Your task to perform on an android device: check the backup settings in the google photos Image 0: 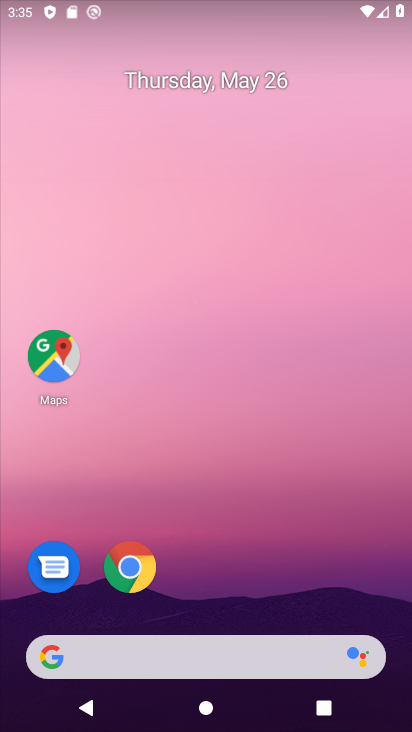
Step 0: drag from (204, 634) to (273, 161)
Your task to perform on an android device: check the backup settings in the google photos Image 1: 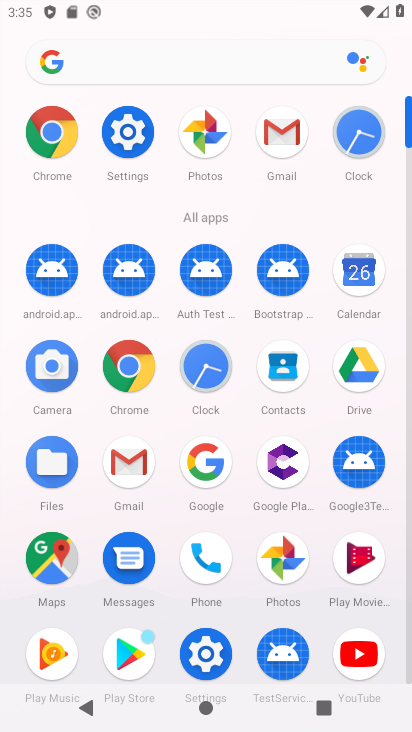
Step 1: click (298, 567)
Your task to perform on an android device: check the backup settings in the google photos Image 2: 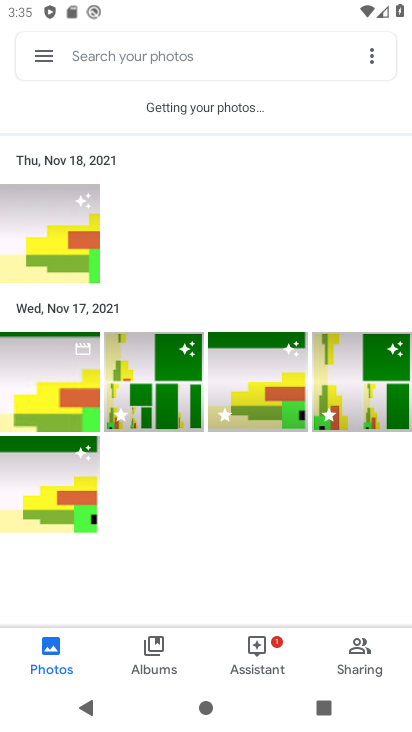
Step 2: click (55, 59)
Your task to perform on an android device: check the backup settings in the google photos Image 3: 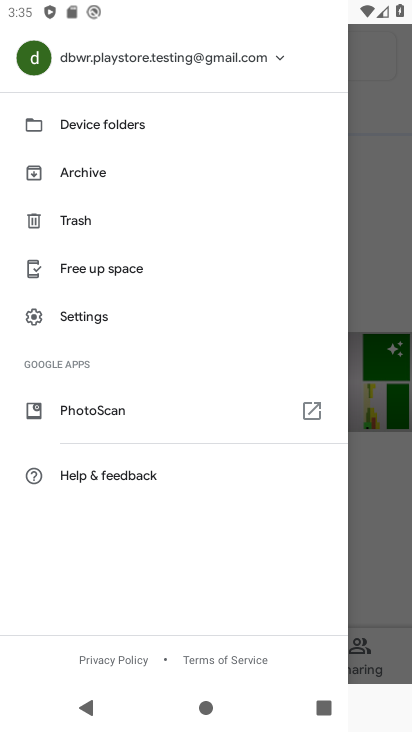
Step 3: click (141, 329)
Your task to perform on an android device: check the backup settings in the google photos Image 4: 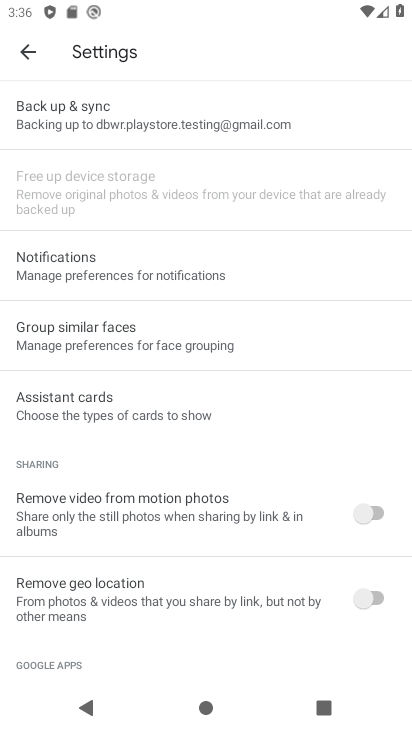
Step 4: click (199, 132)
Your task to perform on an android device: check the backup settings in the google photos Image 5: 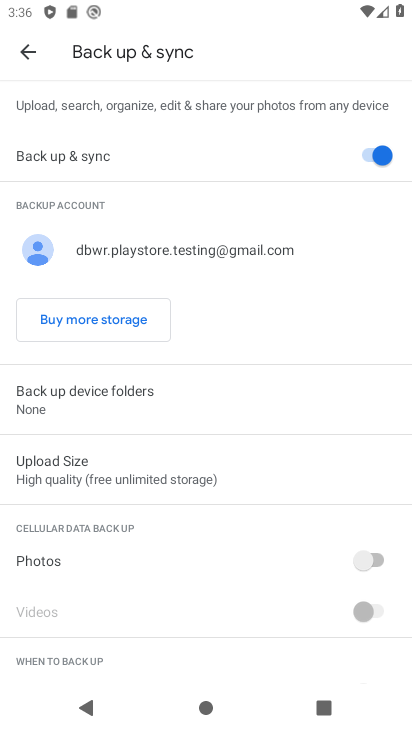
Step 5: task complete